Your task to perform on an android device: Open calendar and show me the first week of next month Image 0: 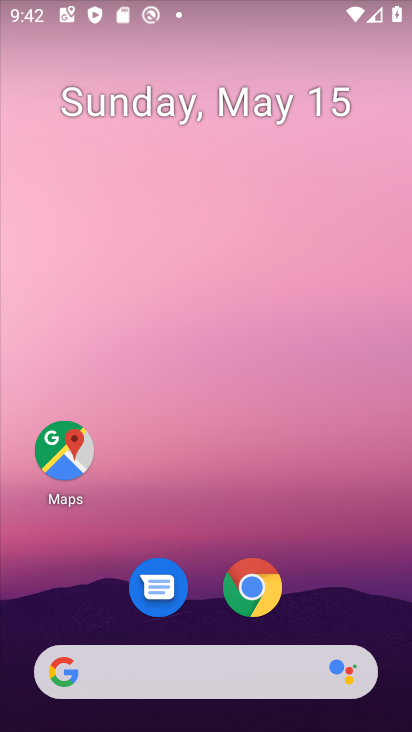
Step 0: drag from (377, 606) to (246, 76)
Your task to perform on an android device: Open calendar and show me the first week of next month Image 1: 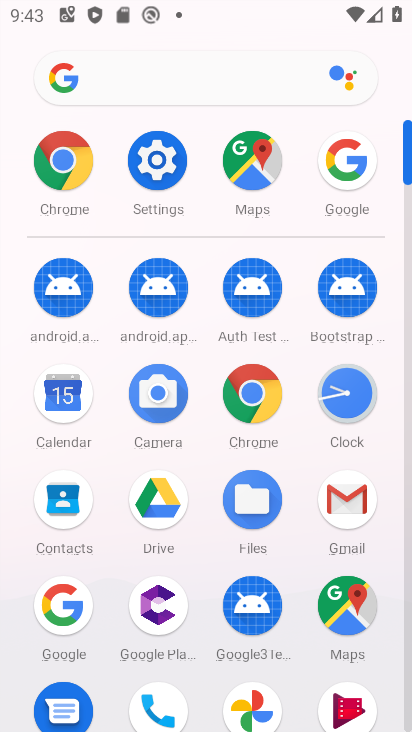
Step 1: click (52, 419)
Your task to perform on an android device: Open calendar and show me the first week of next month Image 2: 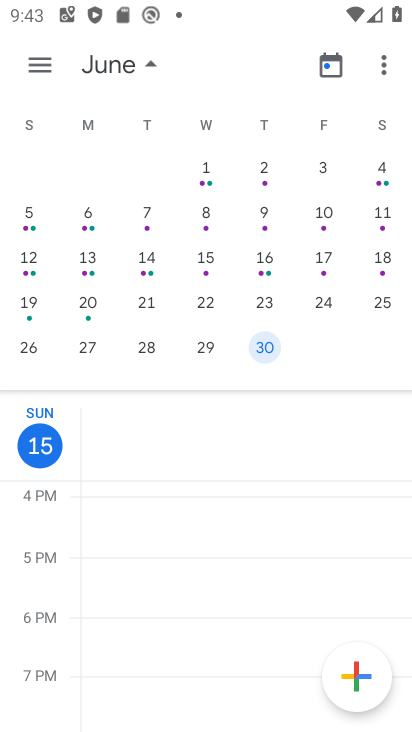
Step 2: drag from (370, 246) to (30, 262)
Your task to perform on an android device: Open calendar and show me the first week of next month Image 3: 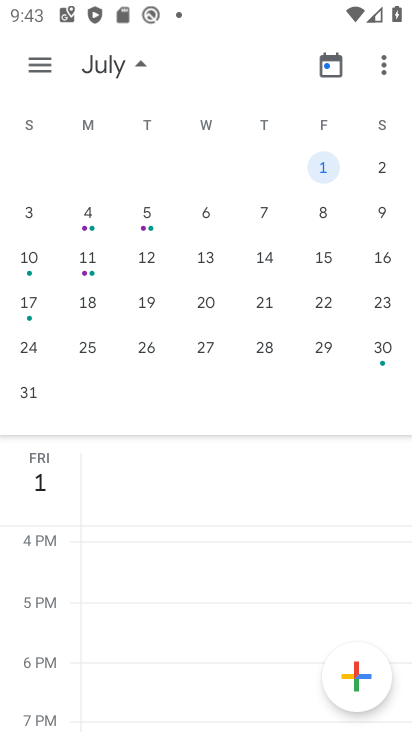
Step 3: click (27, 261)
Your task to perform on an android device: Open calendar and show me the first week of next month Image 4: 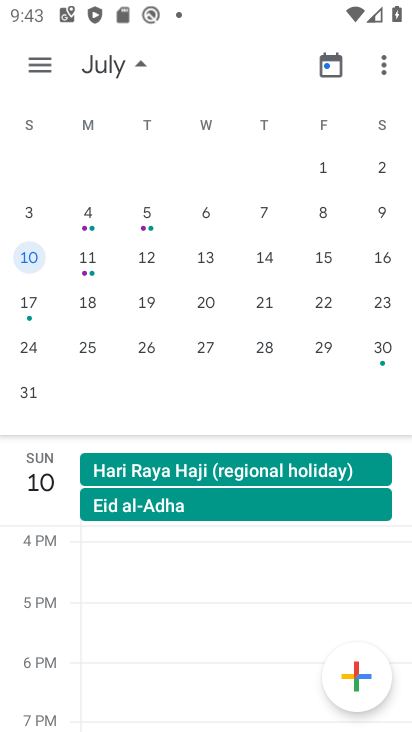
Step 4: click (90, 227)
Your task to perform on an android device: Open calendar and show me the first week of next month Image 5: 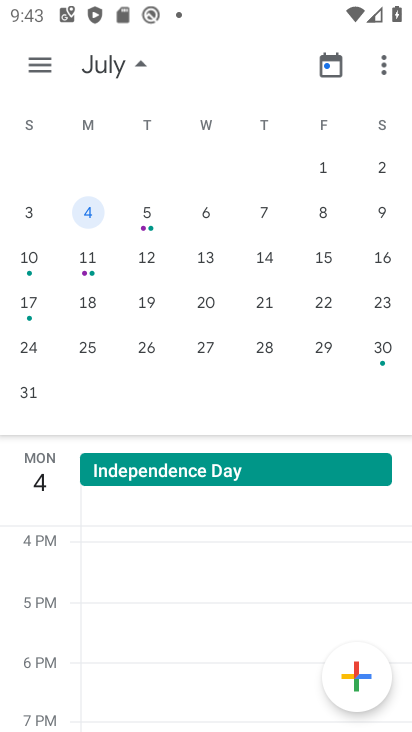
Step 5: task complete